Your task to perform on an android device: Open the contacts app Image 0: 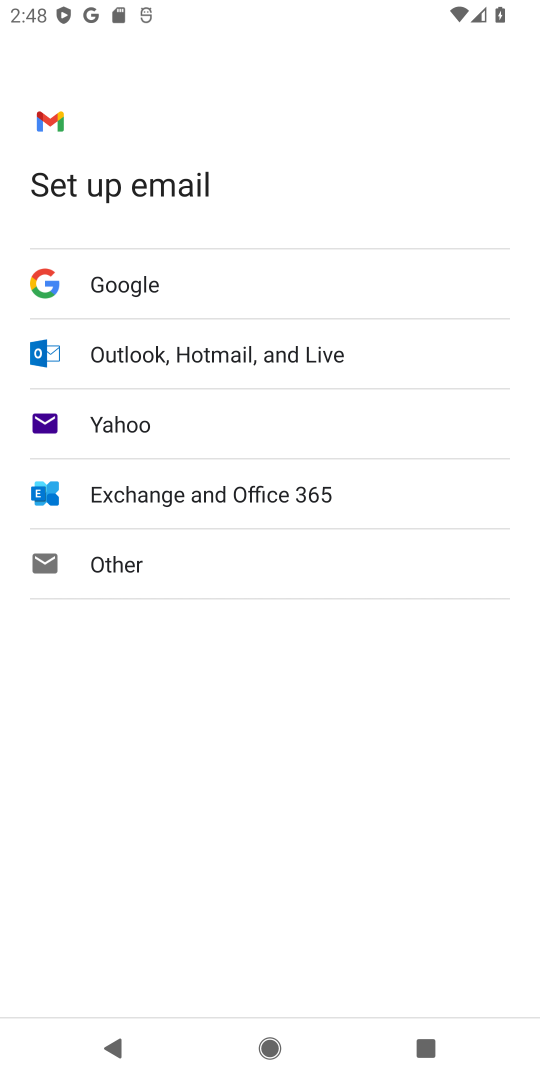
Step 0: press home button
Your task to perform on an android device: Open the contacts app Image 1: 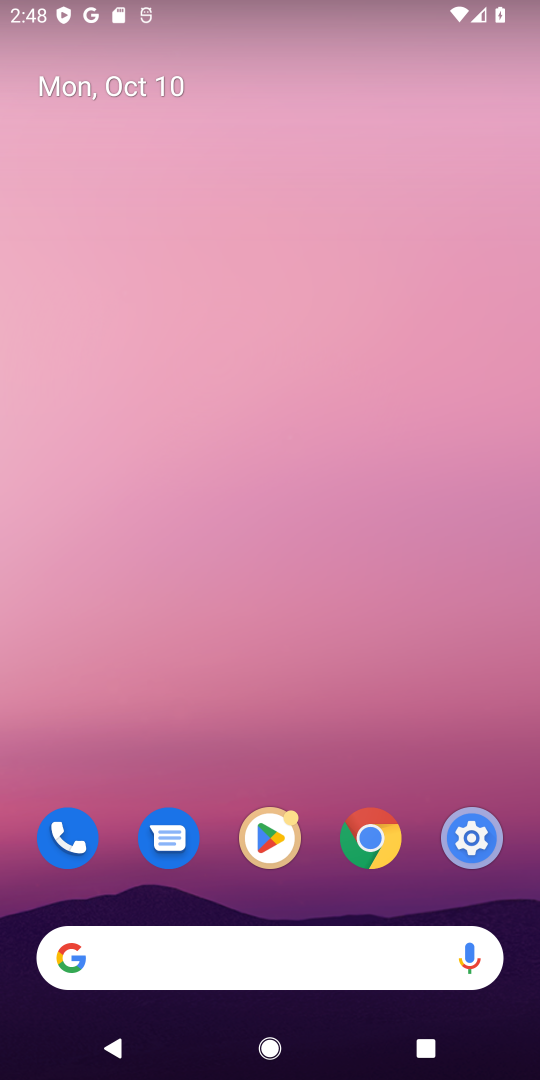
Step 1: drag from (216, 865) to (292, 181)
Your task to perform on an android device: Open the contacts app Image 2: 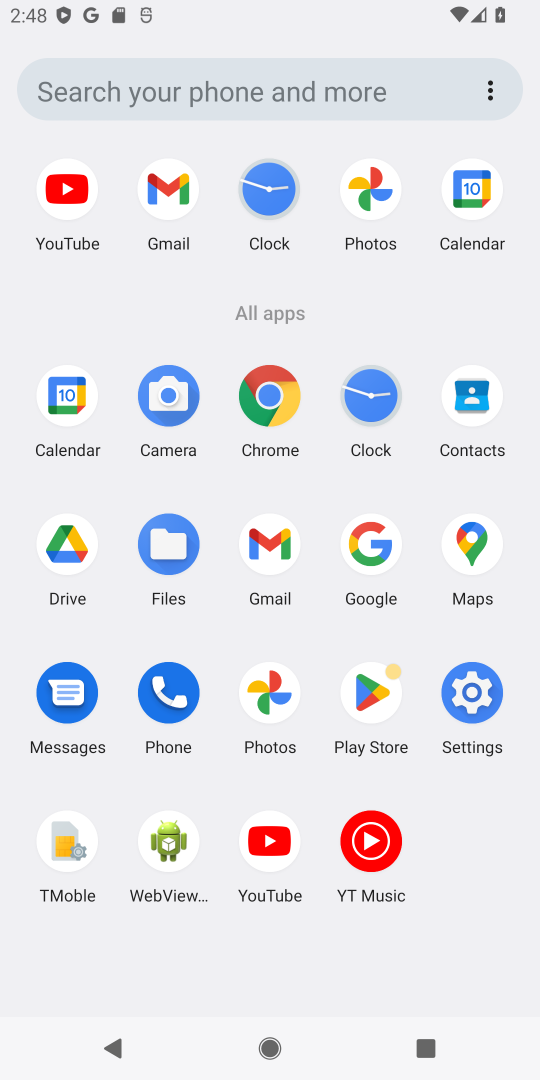
Step 2: click (468, 406)
Your task to perform on an android device: Open the contacts app Image 3: 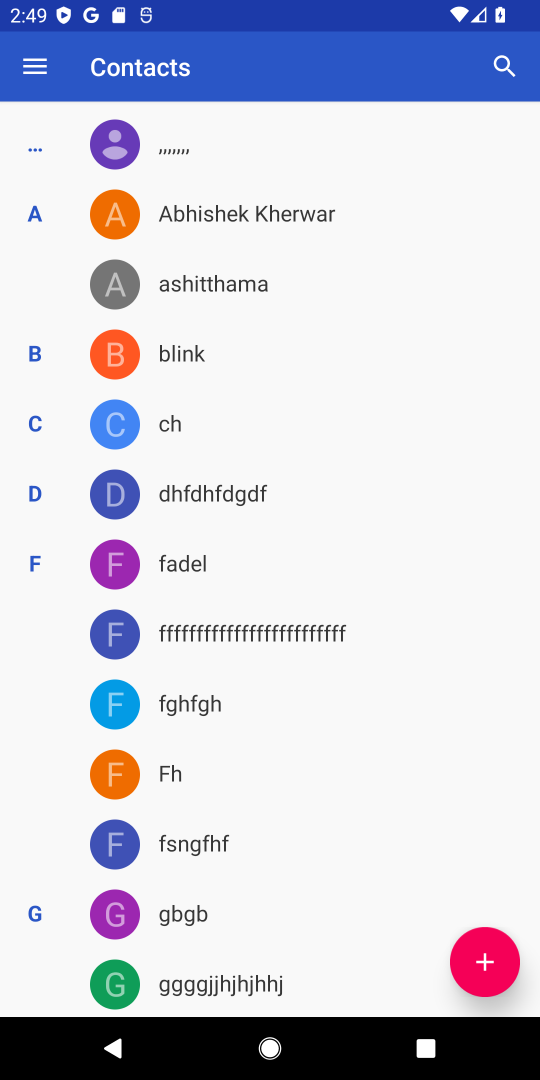
Step 3: task complete